Your task to perform on an android device: Show me popular games on the Play Store Image 0: 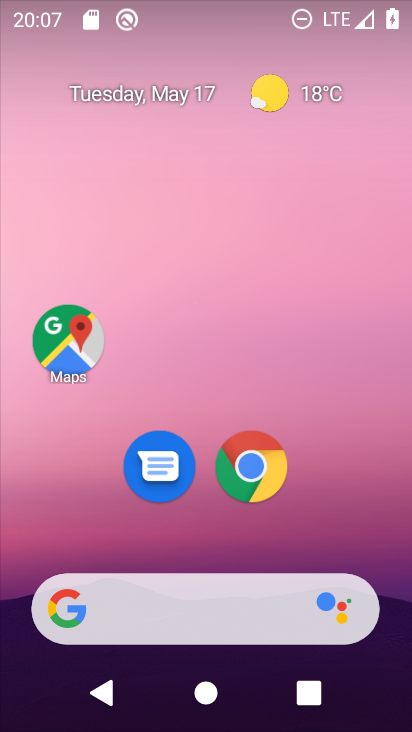
Step 0: drag from (169, 622) to (304, 142)
Your task to perform on an android device: Show me popular games on the Play Store Image 1: 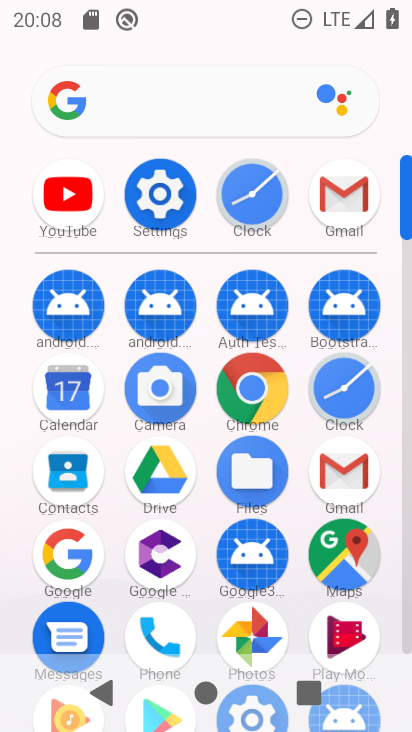
Step 1: drag from (212, 640) to (330, 150)
Your task to perform on an android device: Show me popular games on the Play Store Image 2: 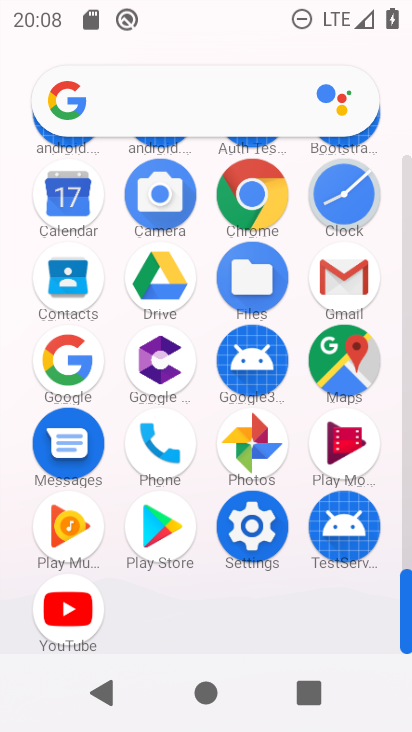
Step 2: click (162, 519)
Your task to perform on an android device: Show me popular games on the Play Store Image 3: 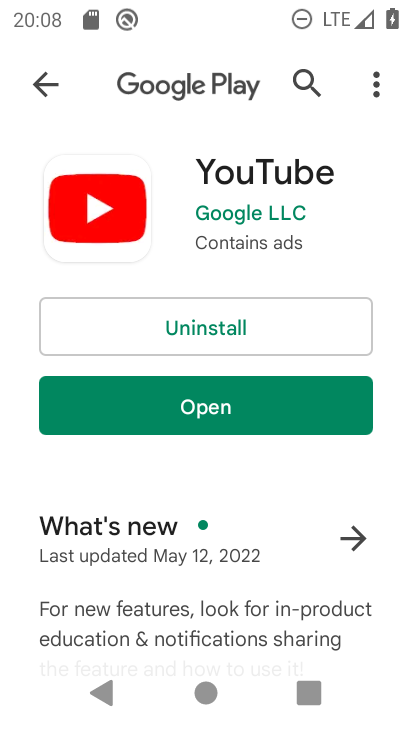
Step 3: click (49, 87)
Your task to perform on an android device: Show me popular games on the Play Store Image 4: 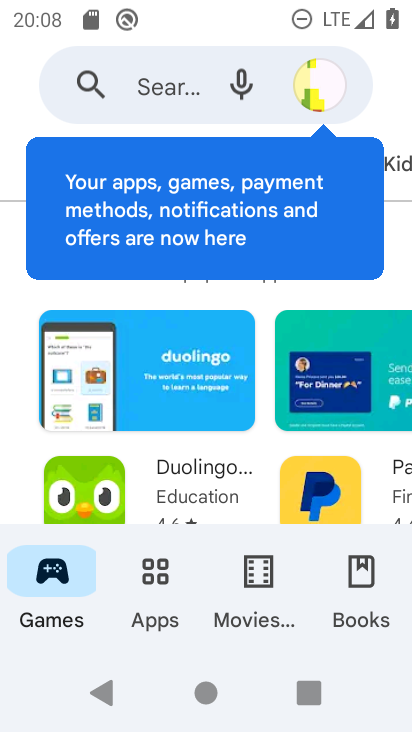
Step 4: drag from (199, 511) to (397, 115)
Your task to perform on an android device: Show me popular games on the Play Store Image 5: 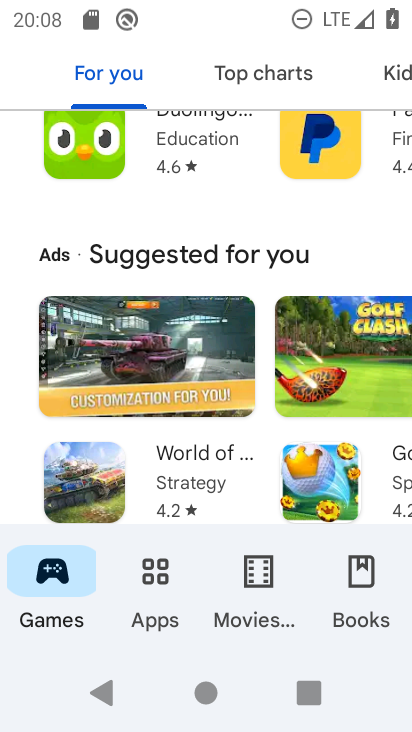
Step 5: drag from (234, 511) to (379, 217)
Your task to perform on an android device: Show me popular games on the Play Store Image 6: 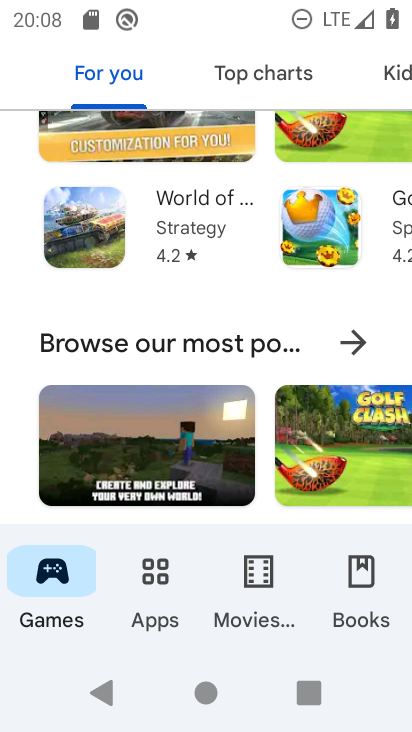
Step 6: click (287, 351)
Your task to perform on an android device: Show me popular games on the Play Store Image 7: 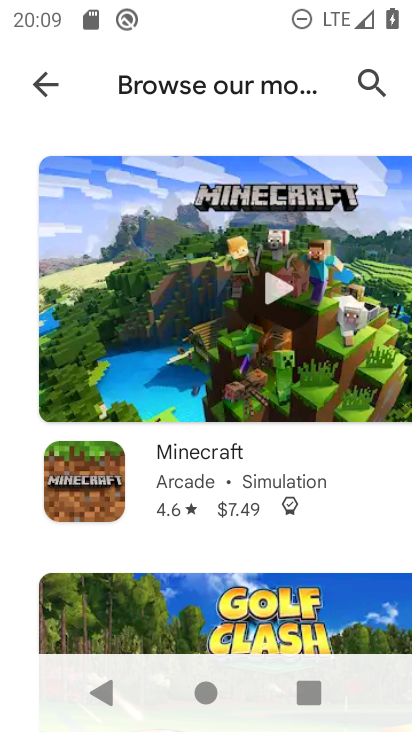
Step 7: task complete